Your task to perform on an android device: all mails in gmail Image 0: 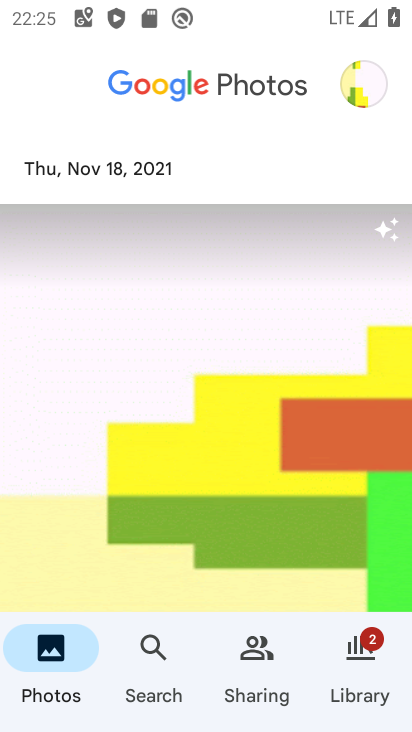
Step 0: press home button
Your task to perform on an android device: all mails in gmail Image 1: 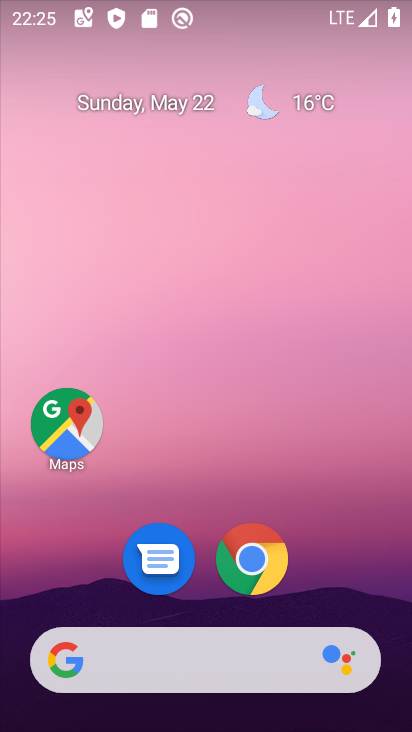
Step 1: drag from (214, 655) to (271, 170)
Your task to perform on an android device: all mails in gmail Image 2: 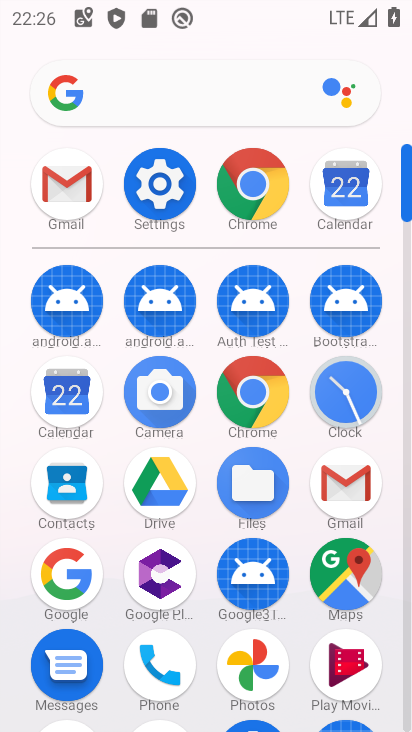
Step 2: click (83, 215)
Your task to perform on an android device: all mails in gmail Image 3: 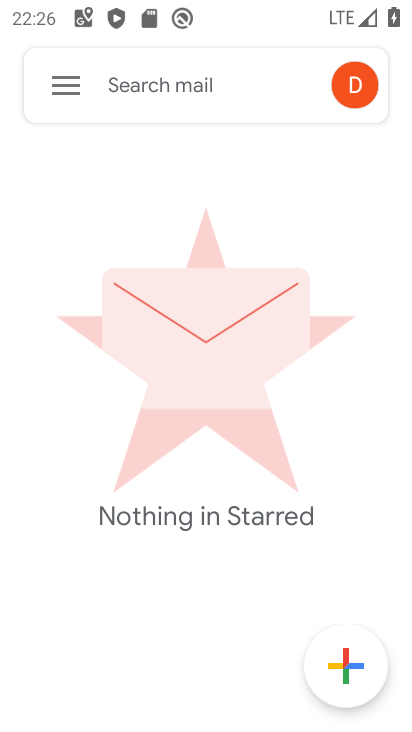
Step 3: click (70, 83)
Your task to perform on an android device: all mails in gmail Image 4: 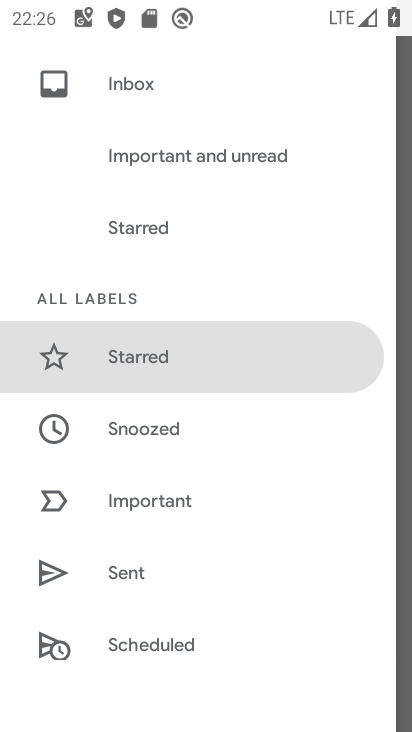
Step 4: drag from (155, 623) to (185, 356)
Your task to perform on an android device: all mails in gmail Image 5: 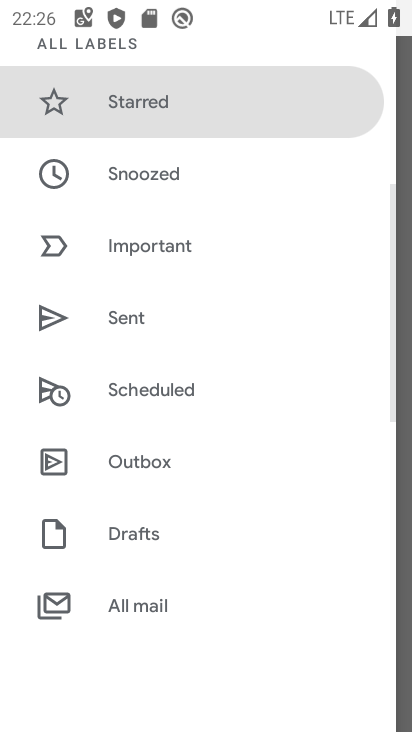
Step 5: click (164, 595)
Your task to perform on an android device: all mails in gmail Image 6: 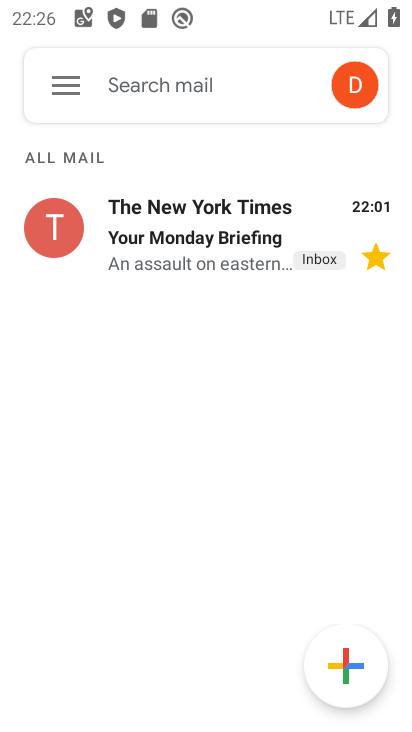
Step 6: task complete